Your task to perform on an android device: Is it going to rain tomorrow? Image 0: 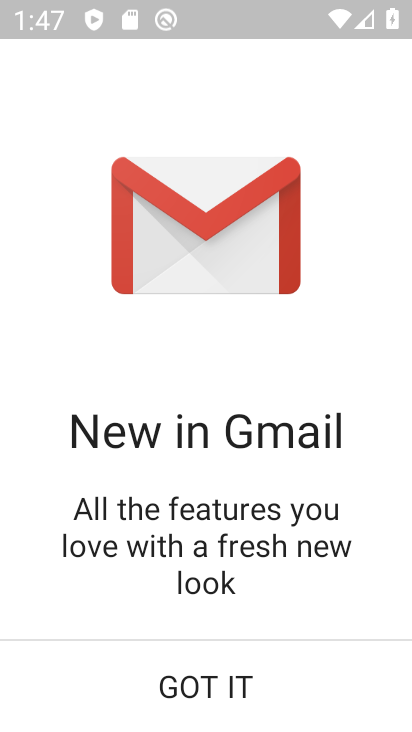
Step 0: click (232, 694)
Your task to perform on an android device: Is it going to rain tomorrow? Image 1: 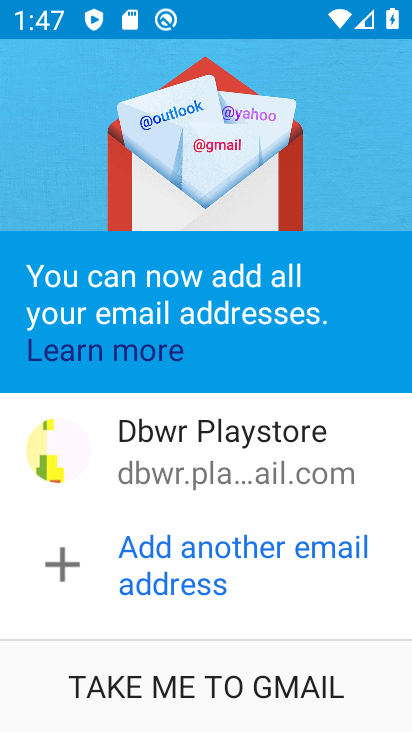
Step 1: click (250, 680)
Your task to perform on an android device: Is it going to rain tomorrow? Image 2: 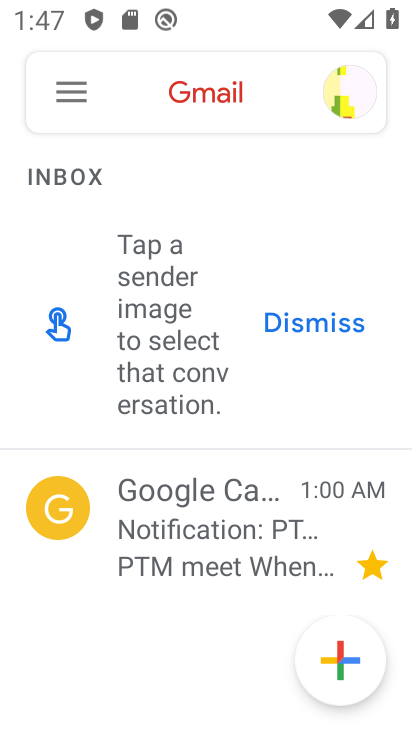
Step 2: press back button
Your task to perform on an android device: Is it going to rain tomorrow? Image 3: 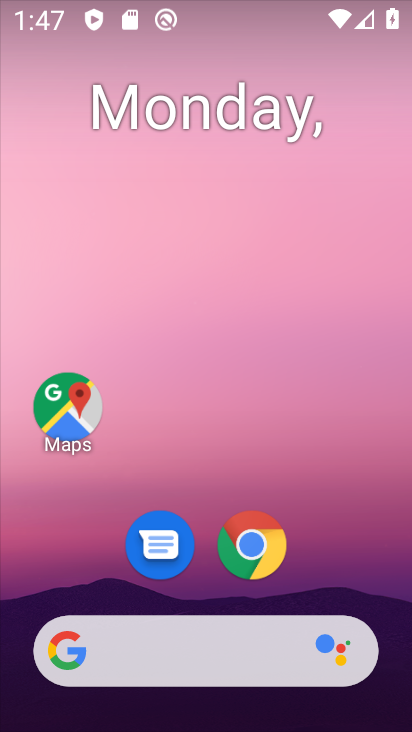
Step 3: click (171, 653)
Your task to perform on an android device: Is it going to rain tomorrow? Image 4: 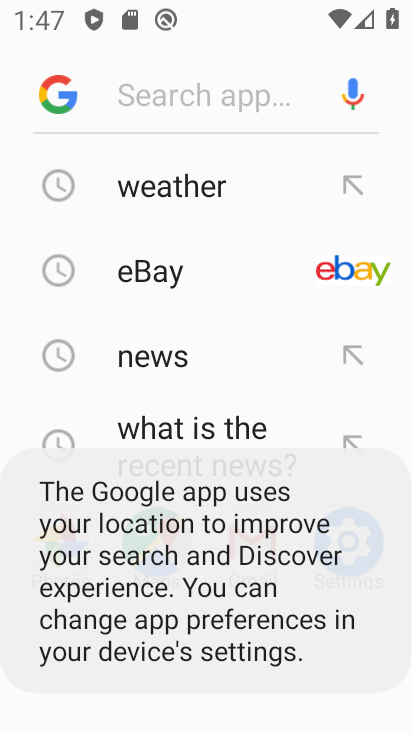
Step 4: click (154, 191)
Your task to perform on an android device: Is it going to rain tomorrow? Image 5: 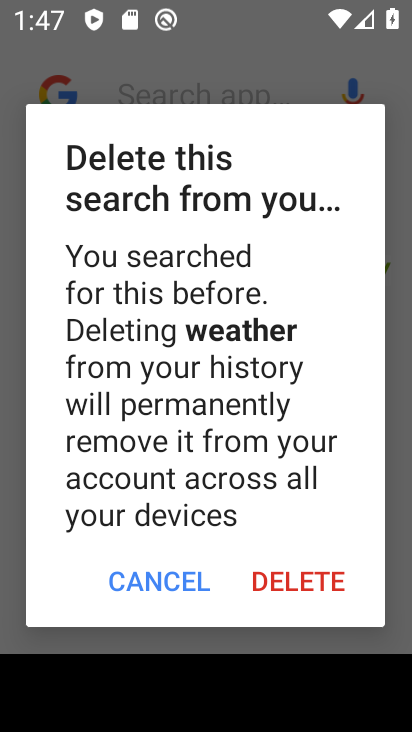
Step 5: click (172, 583)
Your task to perform on an android device: Is it going to rain tomorrow? Image 6: 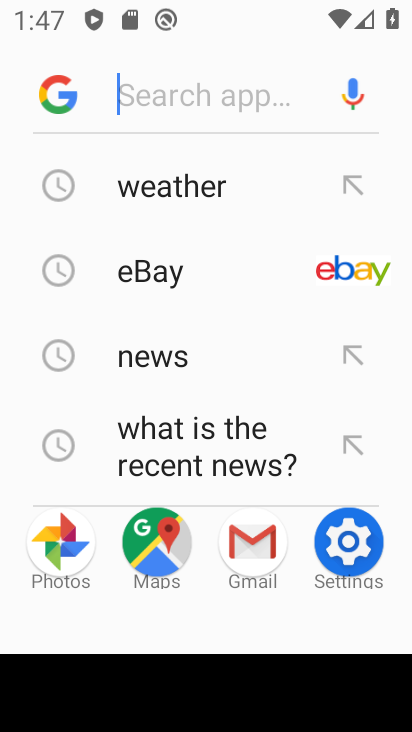
Step 6: click (197, 189)
Your task to perform on an android device: Is it going to rain tomorrow? Image 7: 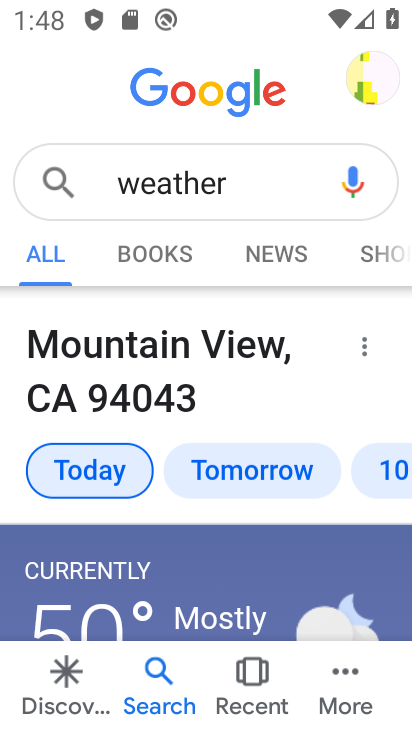
Step 7: click (218, 469)
Your task to perform on an android device: Is it going to rain tomorrow? Image 8: 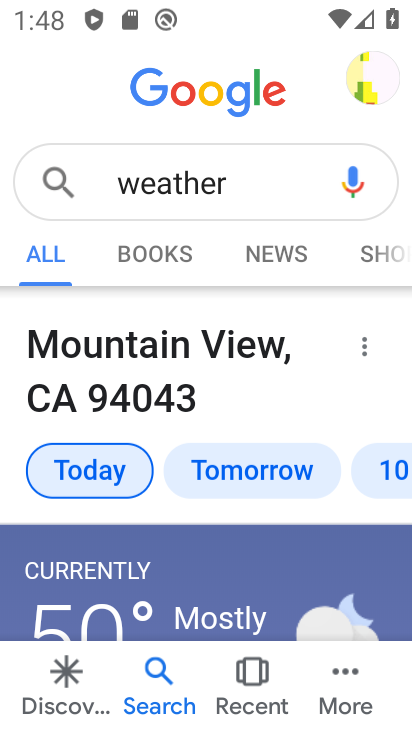
Step 8: drag from (232, 546) to (166, 230)
Your task to perform on an android device: Is it going to rain tomorrow? Image 9: 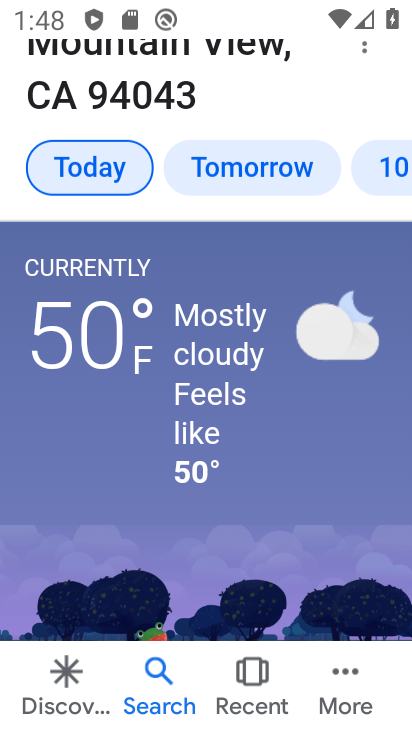
Step 9: click (254, 160)
Your task to perform on an android device: Is it going to rain tomorrow? Image 10: 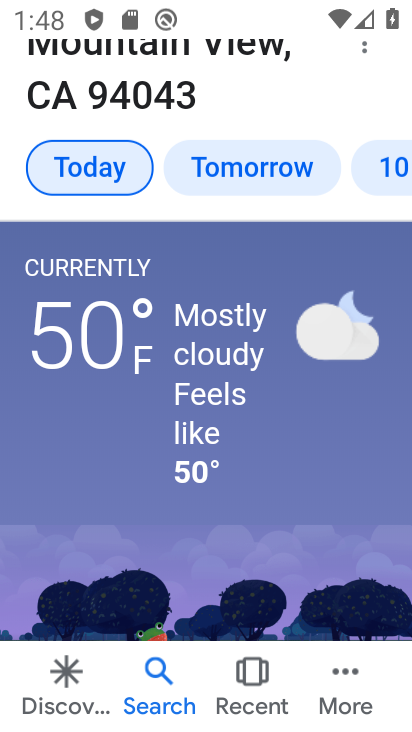
Step 10: click (247, 162)
Your task to perform on an android device: Is it going to rain tomorrow? Image 11: 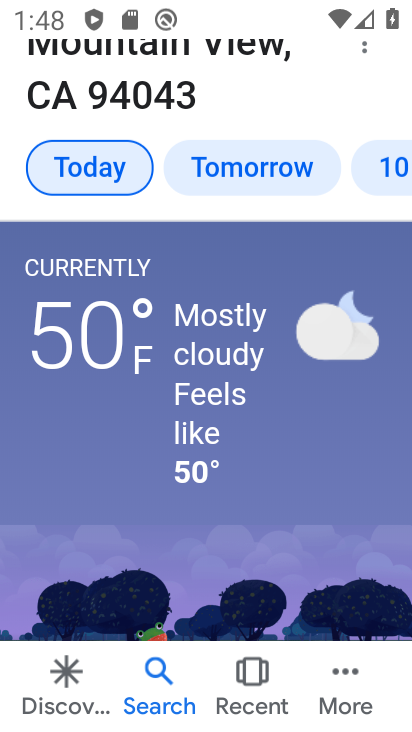
Step 11: click (242, 163)
Your task to perform on an android device: Is it going to rain tomorrow? Image 12: 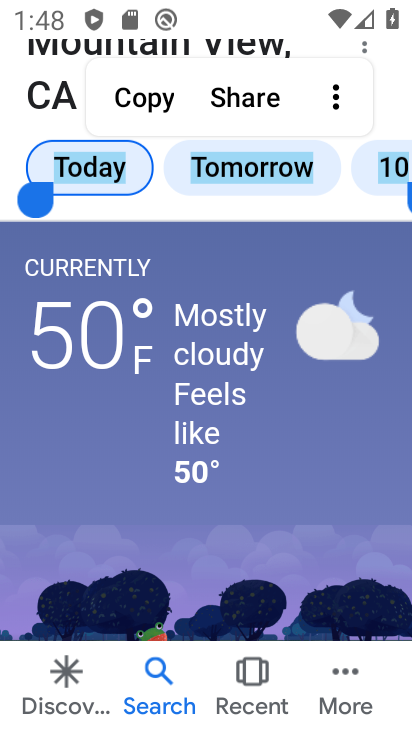
Step 12: click (202, 356)
Your task to perform on an android device: Is it going to rain tomorrow? Image 13: 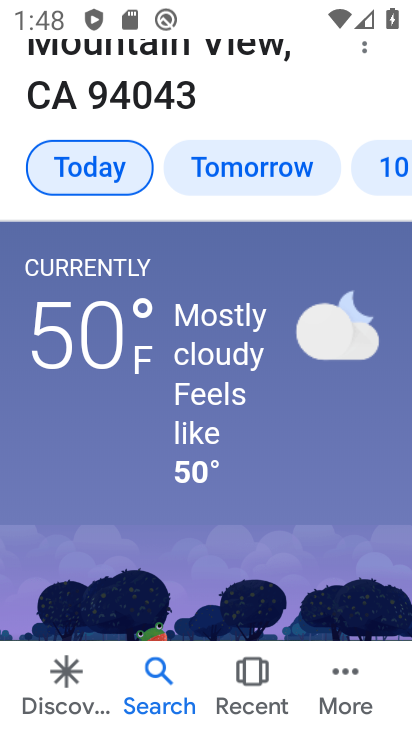
Step 13: click (238, 163)
Your task to perform on an android device: Is it going to rain tomorrow? Image 14: 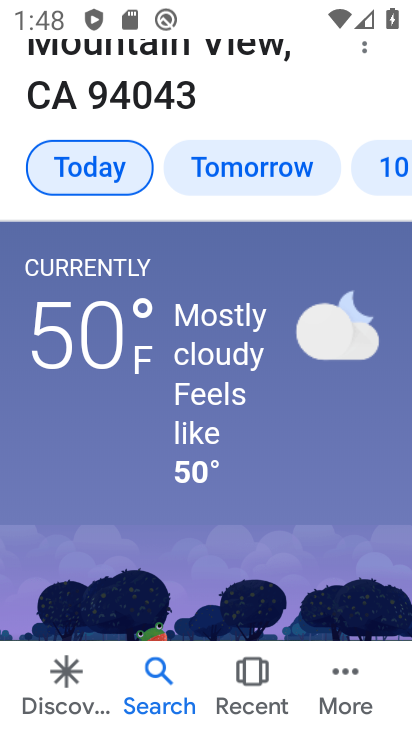
Step 14: click (239, 169)
Your task to perform on an android device: Is it going to rain tomorrow? Image 15: 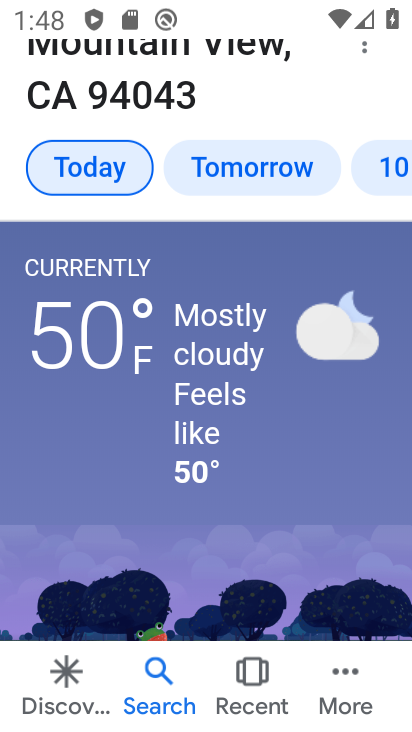
Step 15: task complete